Your task to perform on an android device: turn off translation in the chrome app Image 0: 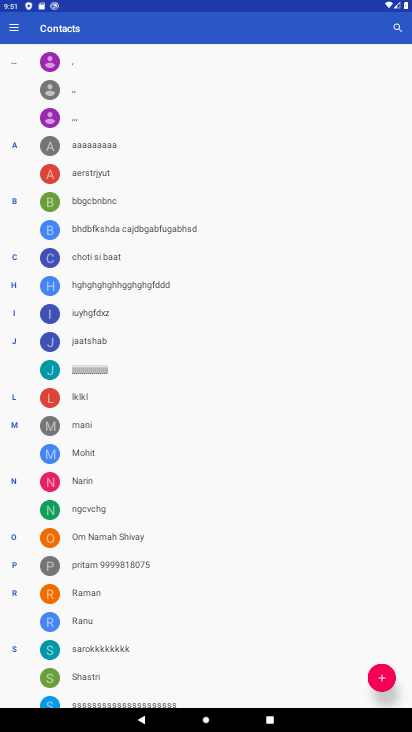
Step 0: press home button
Your task to perform on an android device: turn off translation in the chrome app Image 1: 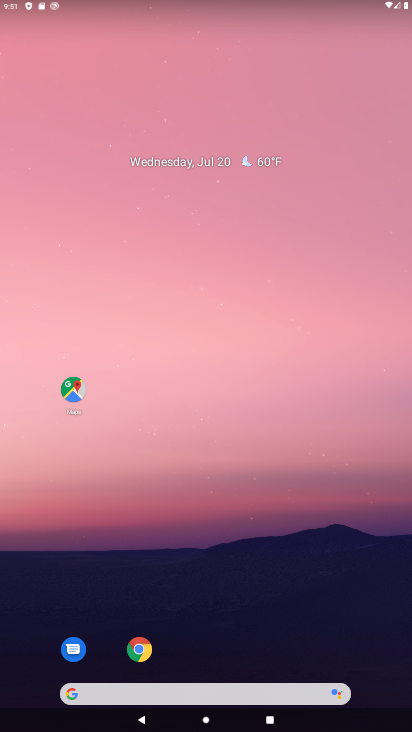
Step 1: click (140, 648)
Your task to perform on an android device: turn off translation in the chrome app Image 2: 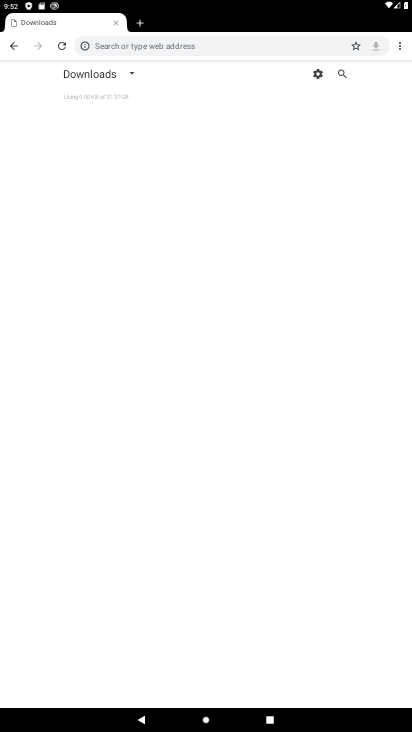
Step 2: click (403, 47)
Your task to perform on an android device: turn off translation in the chrome app Image 3: 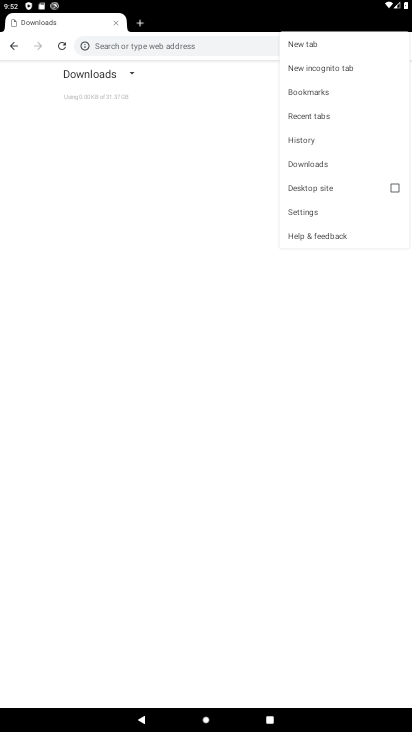
Step 3: click (312, 210)
Your task to perform on an android device: turn off translation in the chrome app Image 4: 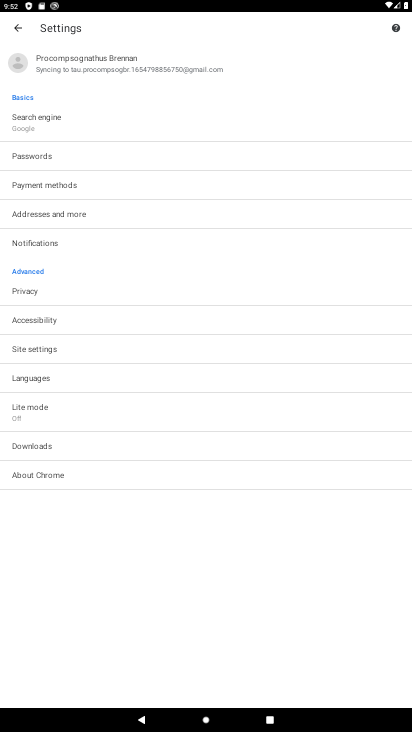
Step 4: click (59, 374)
Your task to perform on an android device: turn off translation in the chrome app Image 5: 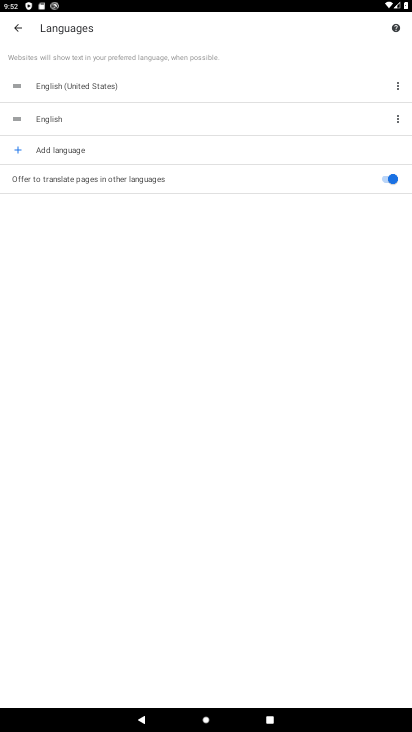
Step 5: click (395, 184)
Your task to perform on an android device: turn off translation in the chrome app Image 6: 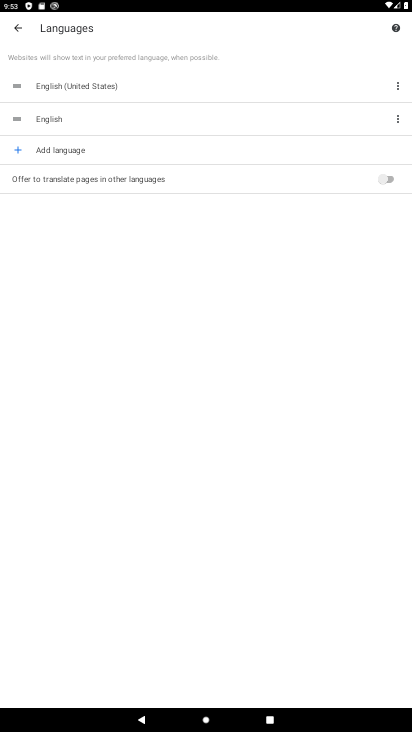
Step 6: task complete